Your task to perform on an android device: check battery use Image 0: 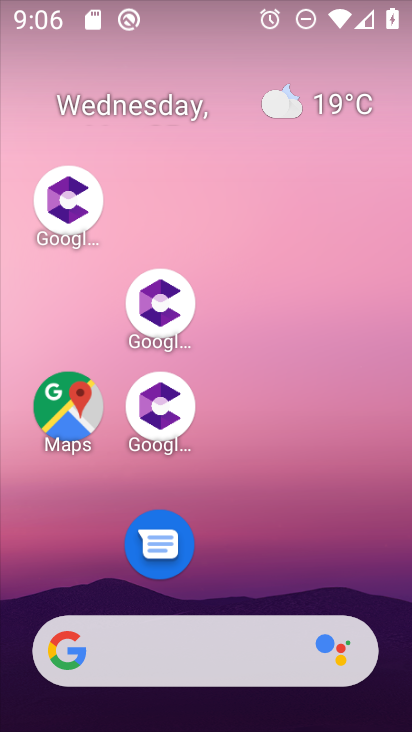
Step 0: drag from (291, 532) to (242, 0)
Your task to perform on an android device: check battery use Image 1: 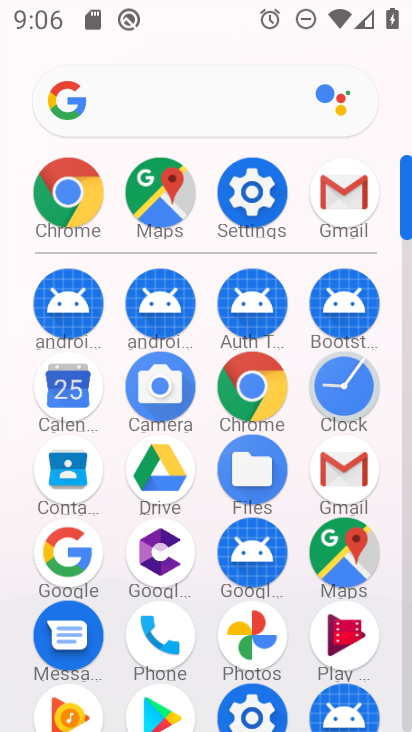
Step 1: click (251, 191)
Your task to perform on an android device: check battery use Image 2: 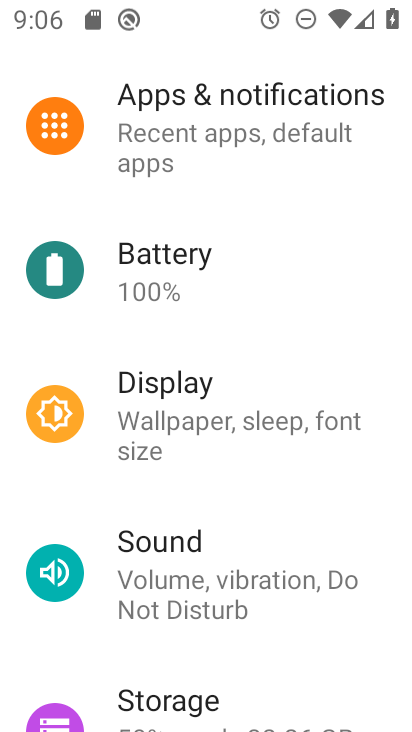
Step 2: click (157, 247)
Your task to perform on an android device: check battery use Image 3: 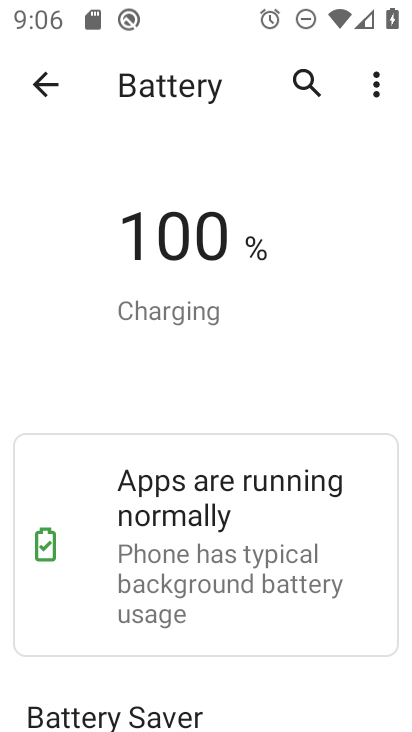
Step 3: task complete